Your task to perform on an android device: set an alarm Image 0: 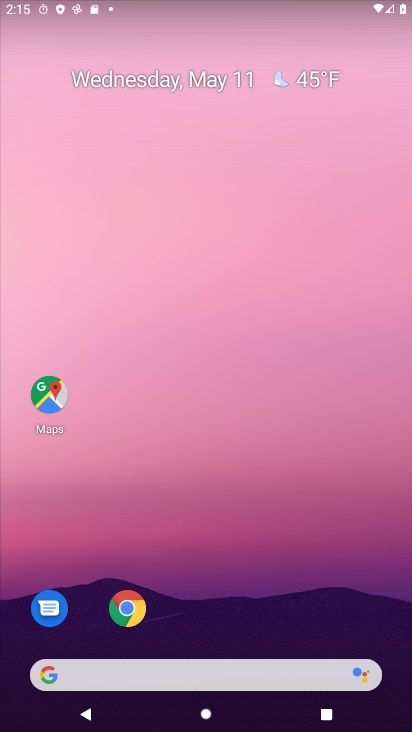
Step 0: drag from (235, 607) to (216, 138)
Your task to perform on an android device: set an alarm Image 1: 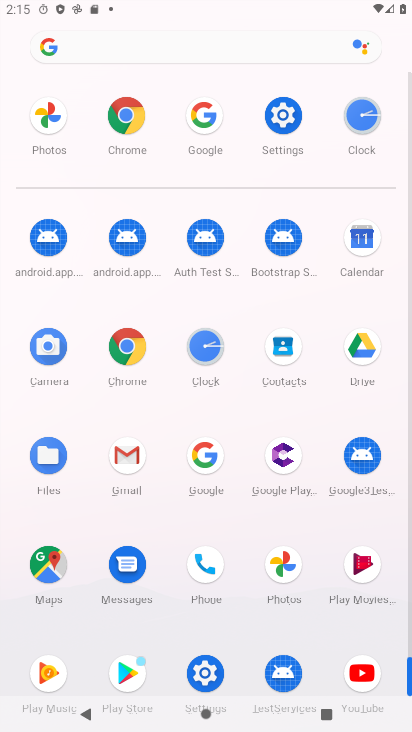
Step 1: click (206, 350)
Your task to perform on an android device: set an alarm Image 2: 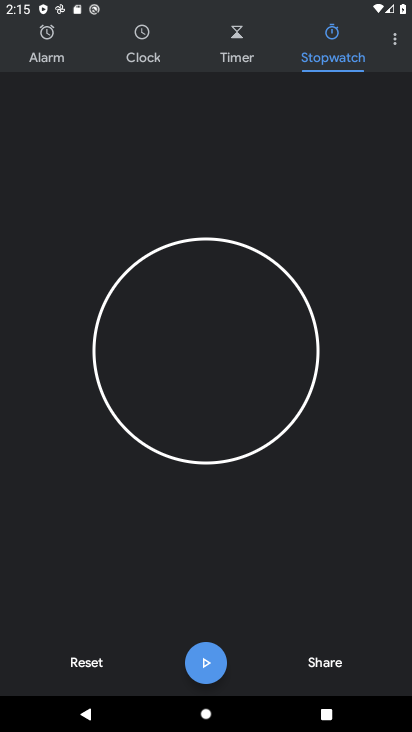
Step 2: click (53, 47)
Your task to perform on an android device: set an alarm Image 3: 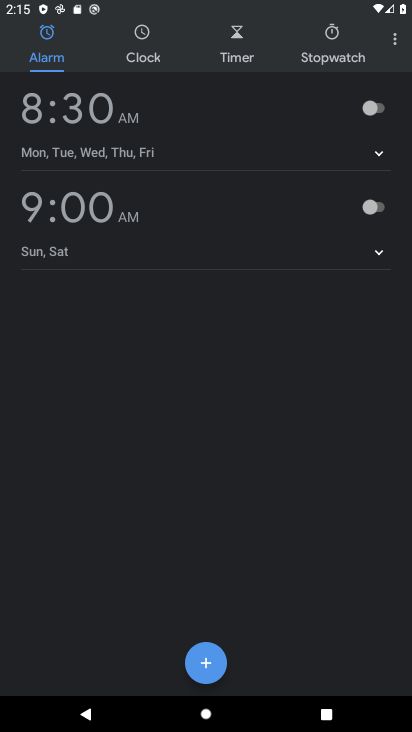
Step 3: click (362, 112)
Your task to perform on an android device: set an alarm Image 4: 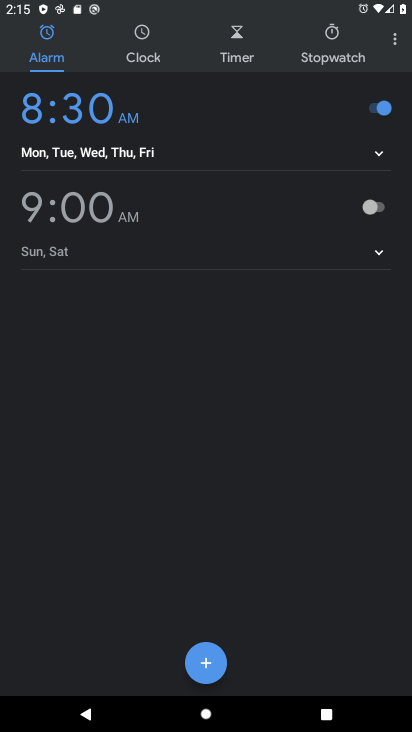
Step 4: task complete